Your task to perform on an android device: Open privacy settings Image 0: 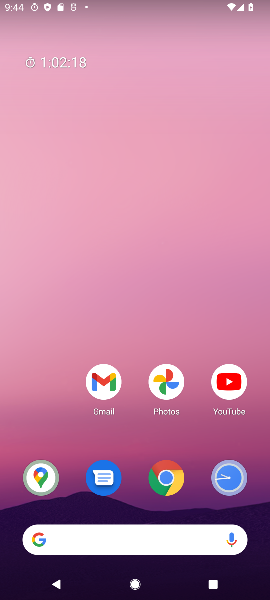
Step 0: press home button
Your task to perform on an android device: Open privacy settings Image 1: 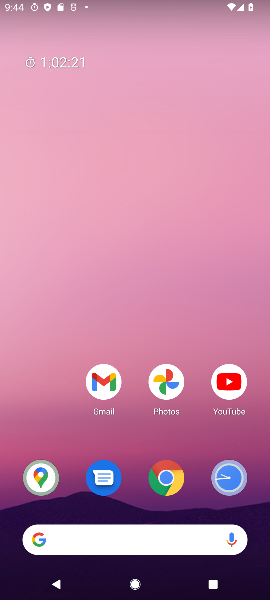
Step 1: drag from (168, 525) to (100, 89)
Your task to perform on an android device: Open privacy settings Image 2: 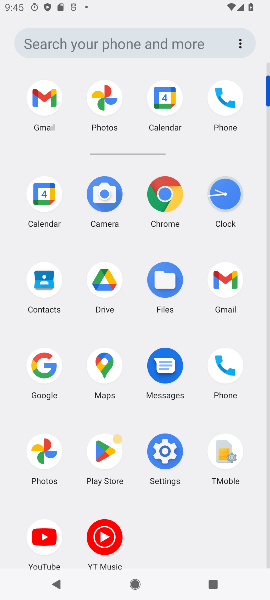
Step 2: click (179, 461)
Your task to perform on an android device: Open privacy settings Image 3: 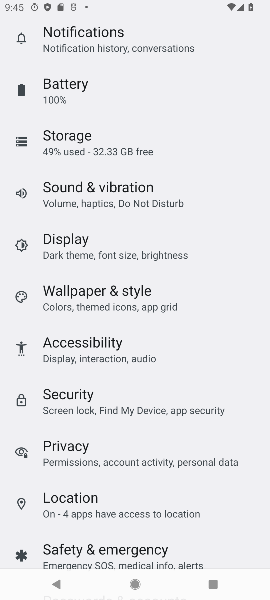
Step 3: click (63, 465)
Your task to perform on an android device: Open privacy settings Image 4: 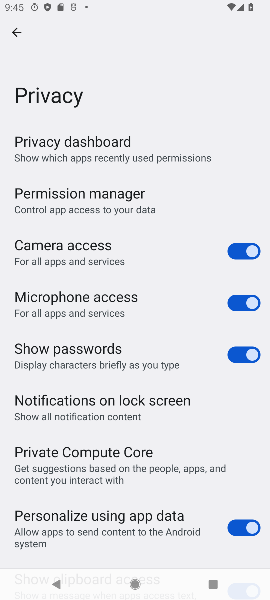
Step 4: task complete